Your task to perform on an android device: toggle improve location accuracy Image 0: 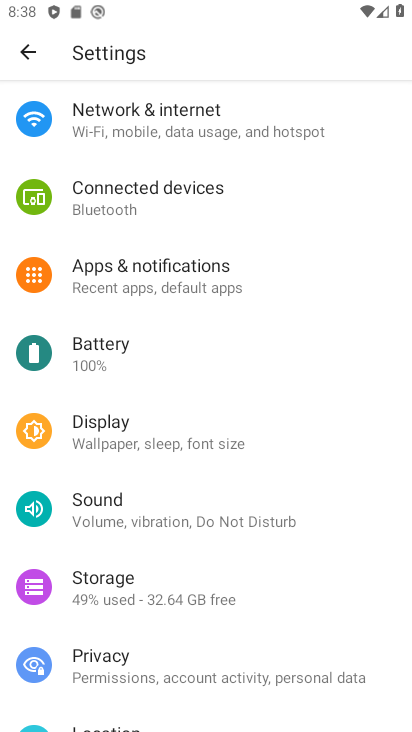
Step 0: drag from (349, 639) to (322, 282)
Your task to perform on an android device: toggle improve location accuracy Image 1: 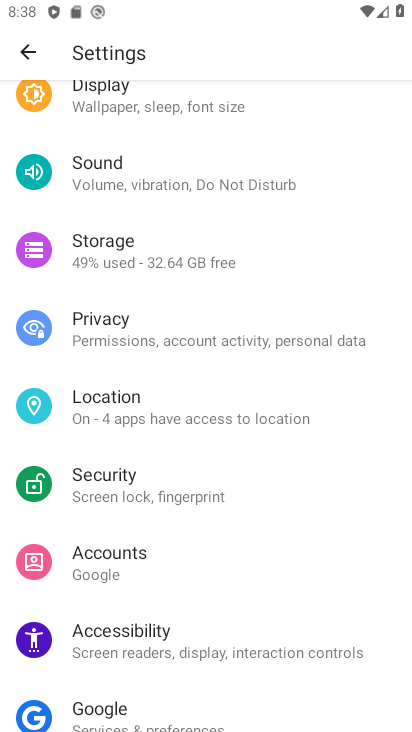
Step 1: click (135, 406)
Your task to perform on an android device: toggle improve location accuracy Image 2: 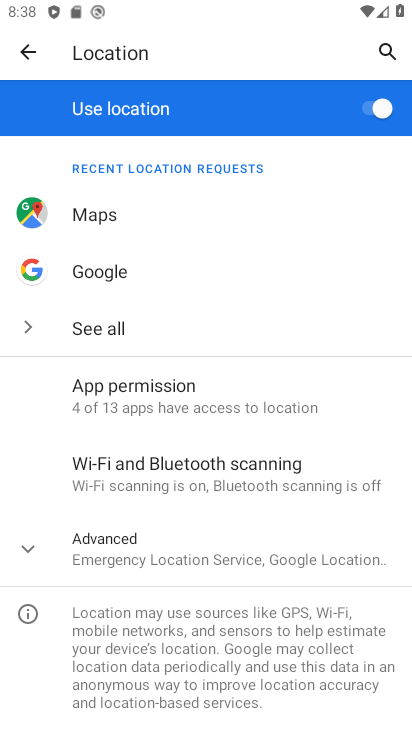
Step 2: click (29, 550)
Your task to perform on an android device: toggle improve location accuracy Image 3: 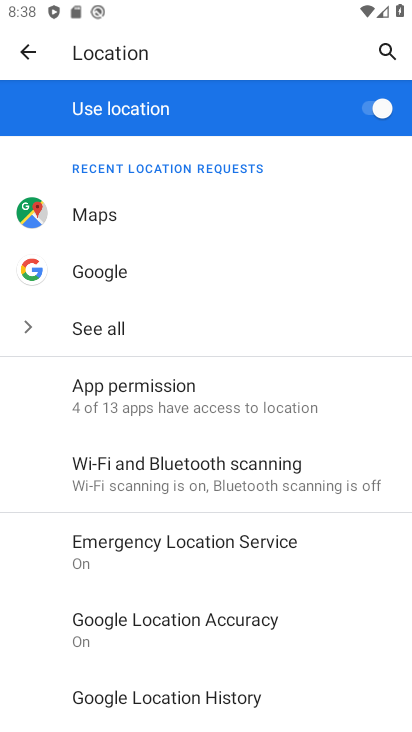
Step 3: click (197, 627)
Your task to perform on an android device: toggle improve location accuracy Image 4: 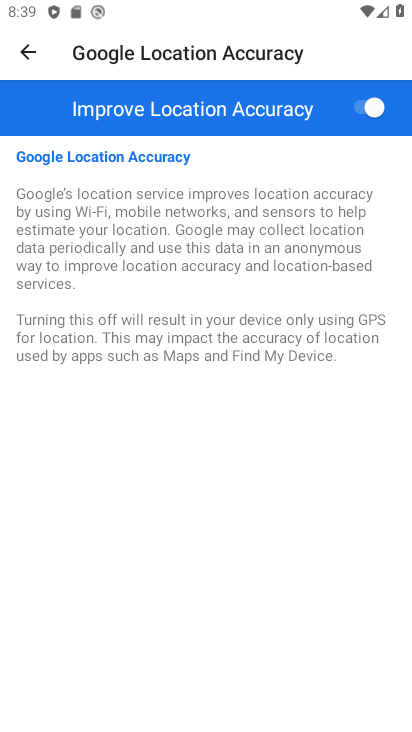
Step 4: click (376, 108)
Your task to perform on an android device: toggle improve location accuracy Image 5: 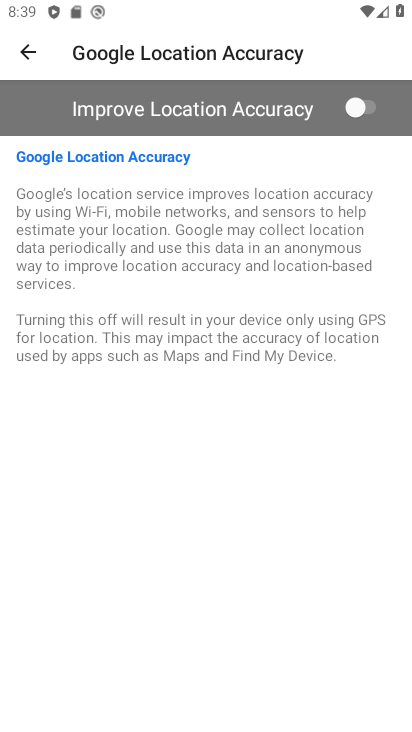
Step 5: task complete